Your task to perform on an android device: all mails in gmail Image 0: 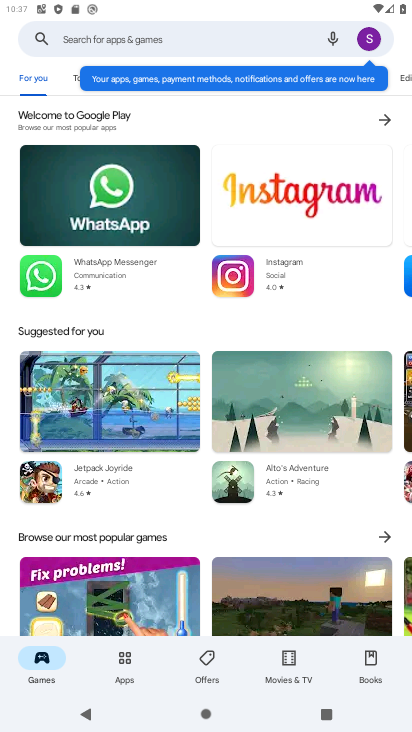
Step 0: press home button
Your task to perform on an android device: all mails in gmail Image 1: 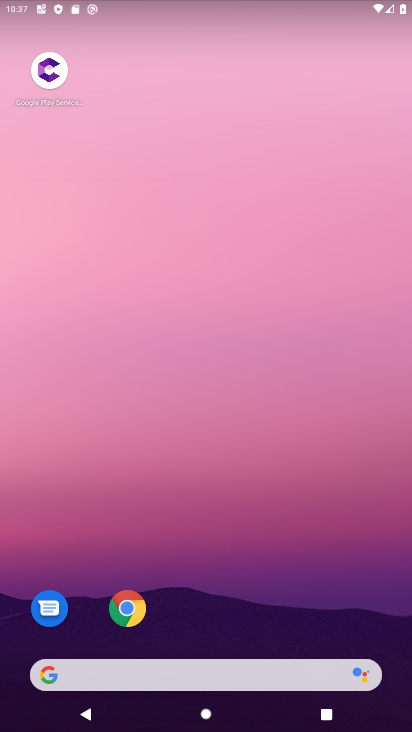
Step 1: drag from (192, 622) to (232, 34)
Your task to perform on an android device: all mails in gmail Image 2: 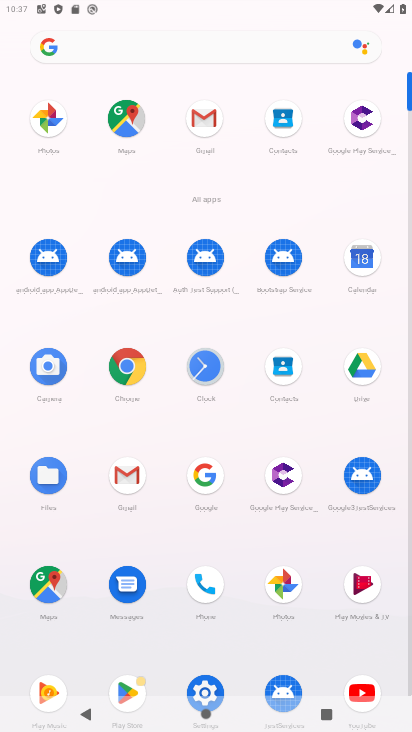
Step 2: click (135, 487)
Your task to perform on an android device: all mails in gmail Image 3: 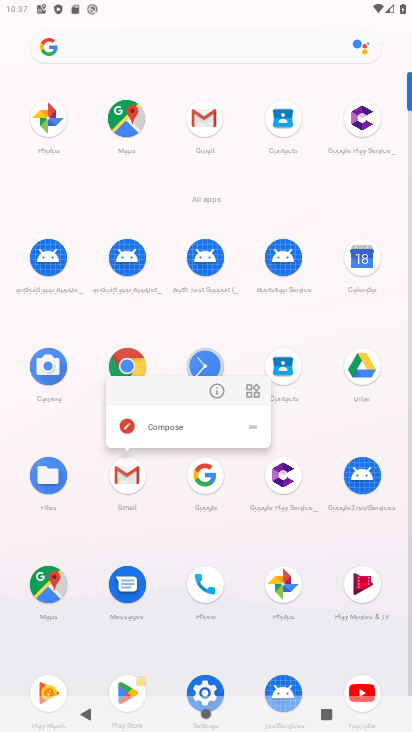
Step 3: click (160, 425)
Your task to perform on an android device: all mails in gmail Image 4: 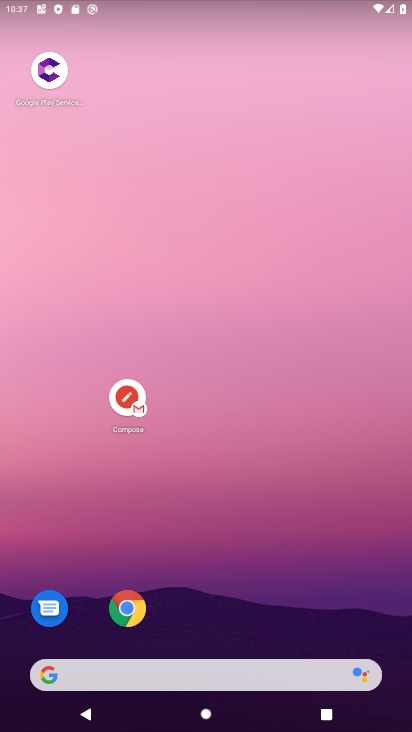
Step 4: drag from (234, 615) to (207, 26)
Your task to perform on an android device: all mails in gmail Image 5: 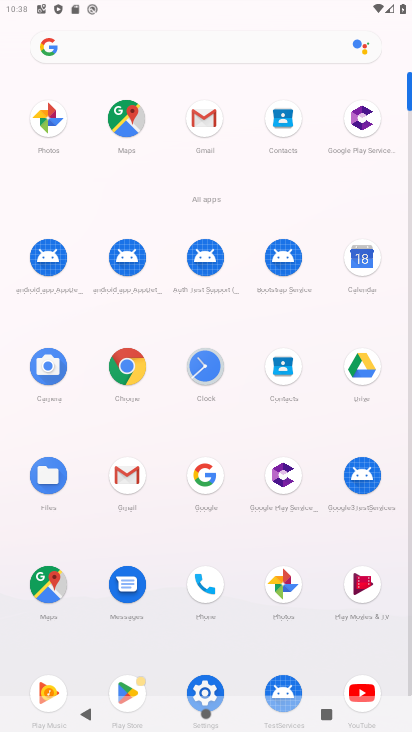
Step 5: click (129, 485)
Your task to perform on an android device: all mails in gmail Image 6: 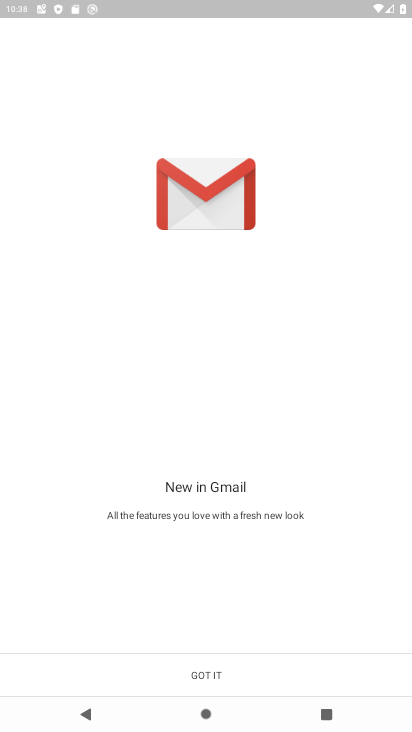
Step 6: click (218, 677)
Your task to perform on an android device: all mails in gmail Image 7: 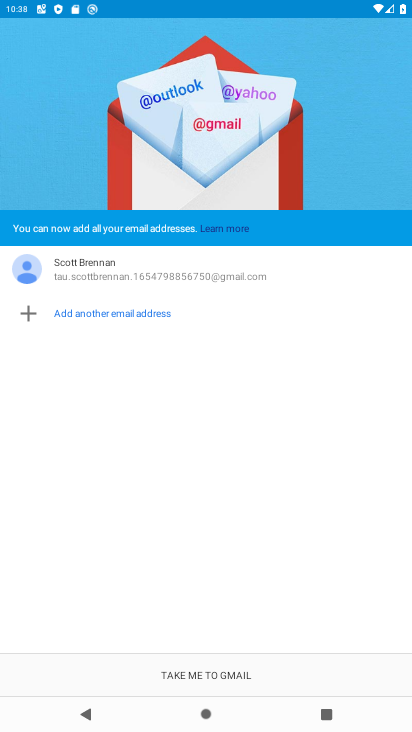
Step 7: click (205, 669)
Your task to perform on an android device: all mails in gmail Image 8: 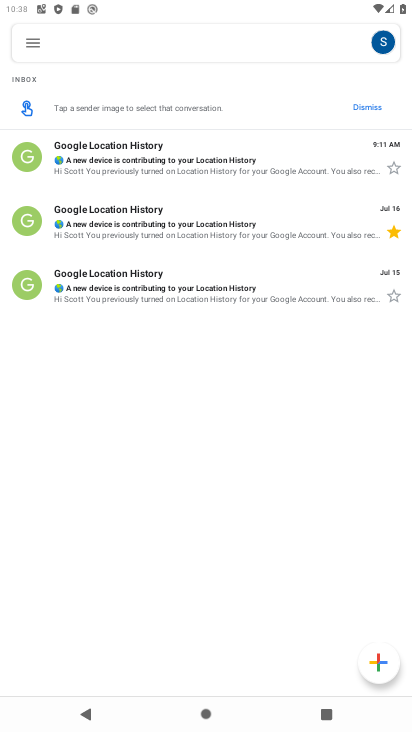
Step 8: click (37, 38)
Your task to perform on an android device: all mails in gmail Image 9: 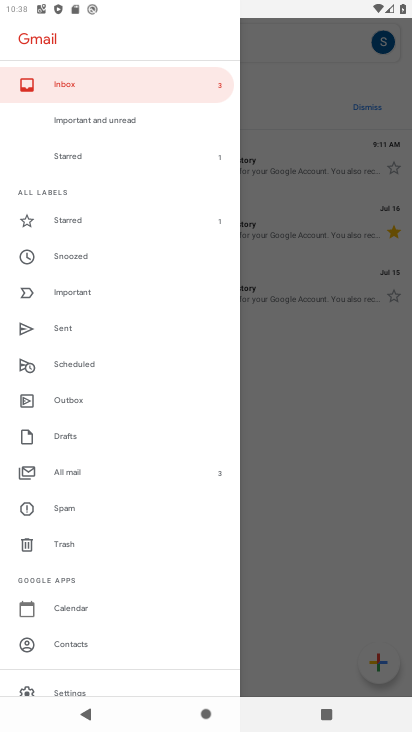
Step 9: click (74, 474)
Your task to perform on an android device: all mails in gmail Image 10: 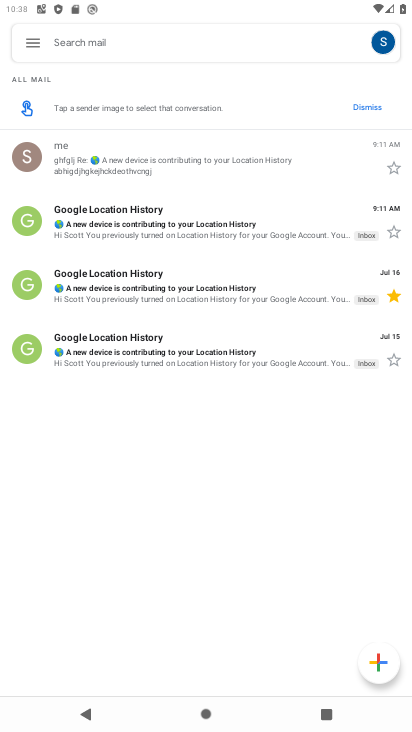
Step 10: task complete